Your task to perform on an android device: turn off location history Image 0: 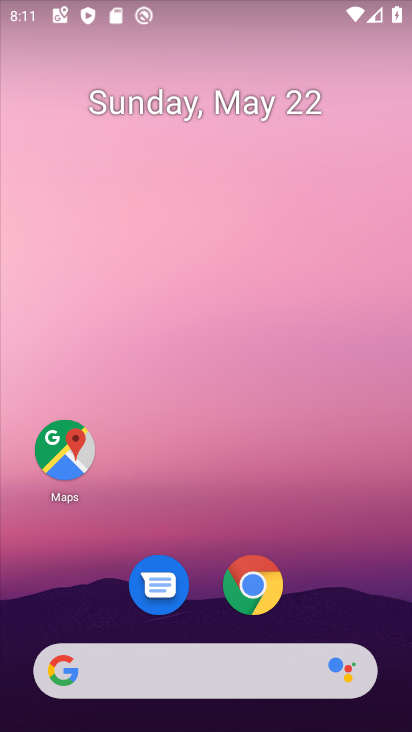
Step 0: drag from (217, 491) to (269, 1)
Your task to perform on an android device: turn off location history Image 1: 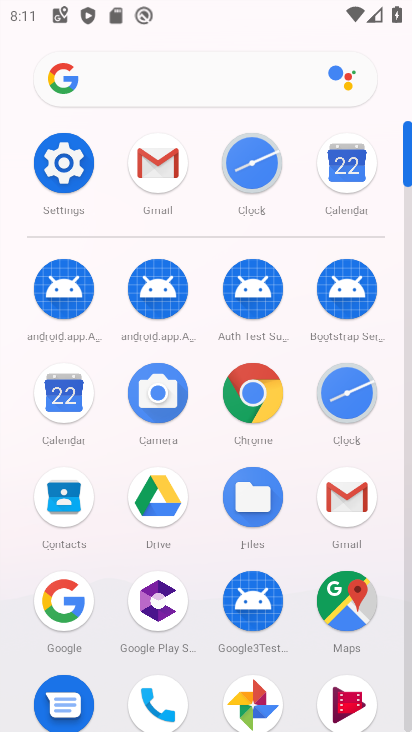
Step 1: click (65, 159)
Your task to perform on an android device: turn off location history Image 2: 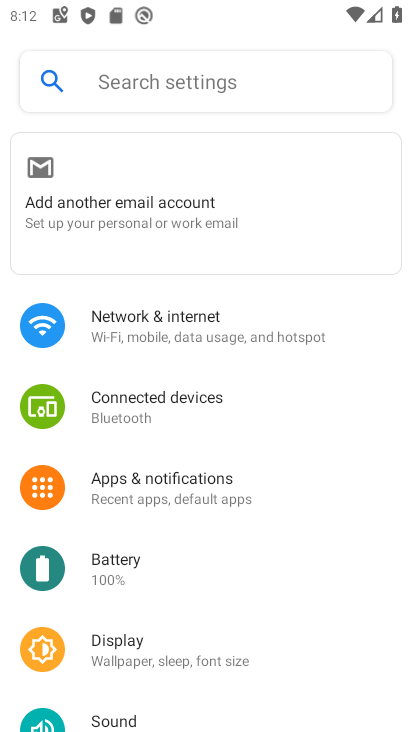
Step 2: drag from (177, 628) to (192, 127)
Your task to perform on an android device: turn off location history Image 3: 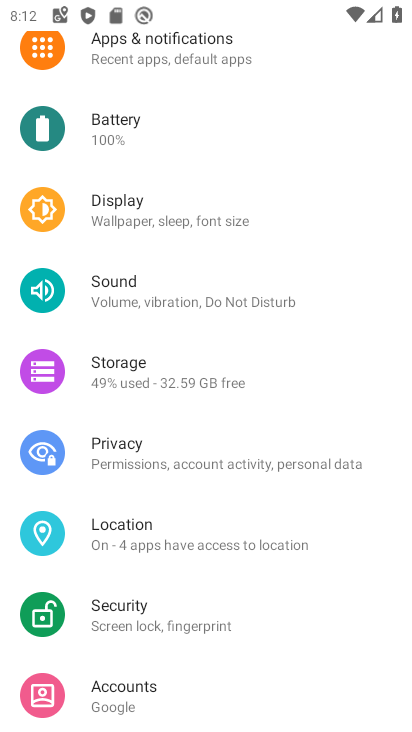
Step 3: click (217, 538)
Your task to perform on an android device: turn off location history Image 4: 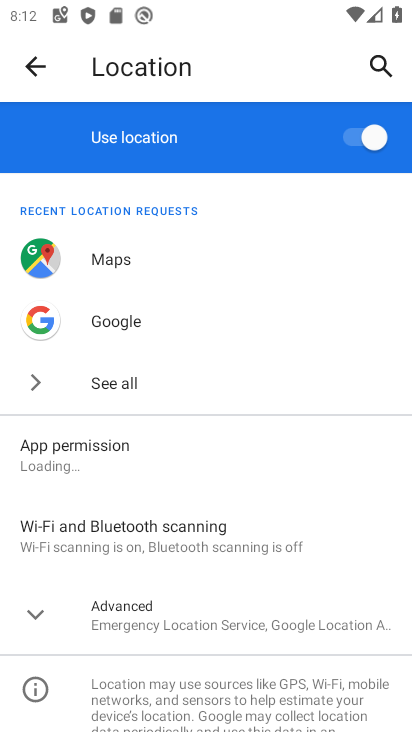
Step 4: click (32, 614)
Your task to perform on an android device: turn off location history Image 5: 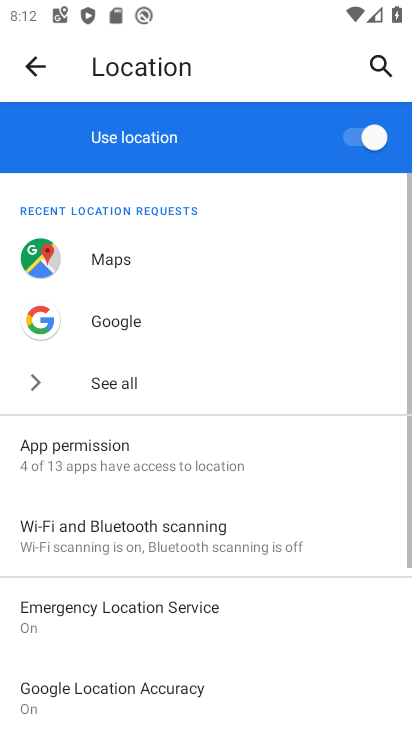
Step 5: task complete